Your task to perform on an android device: check the backup settings in the google photos Image 0: 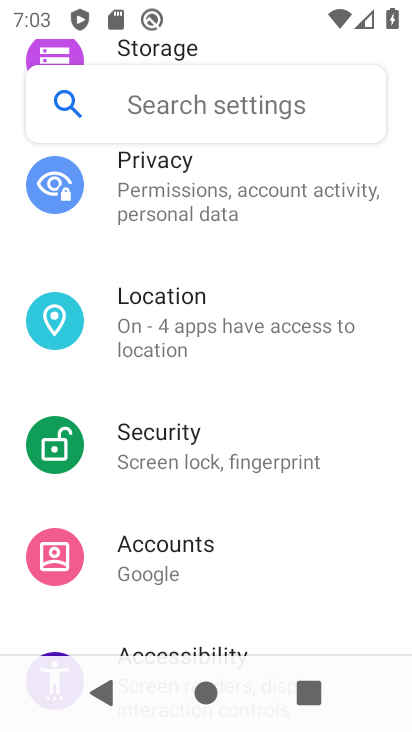
Step 0: press home button
Your task to perform on an android device: check the backup settings in the google photos Image 1: 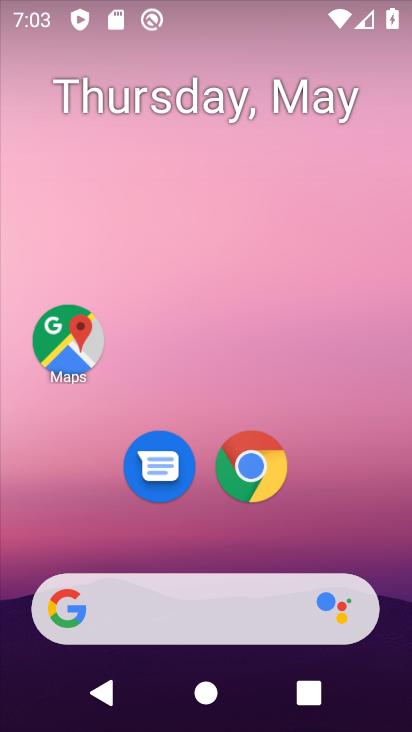
Step 1: drag from (325, 525) to (256, 28)
Your task to perform on an android device: check the backup settings in the google photos Image 2: 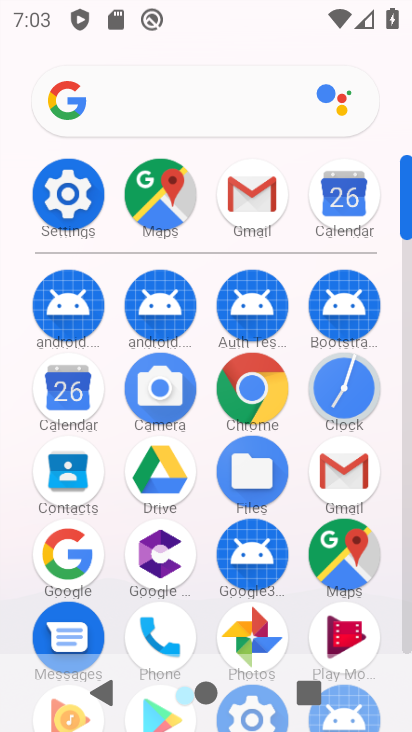
Step 2: click (242, 628)
Your task to perform on an android device: check the backup settings in the google photos Image 3: 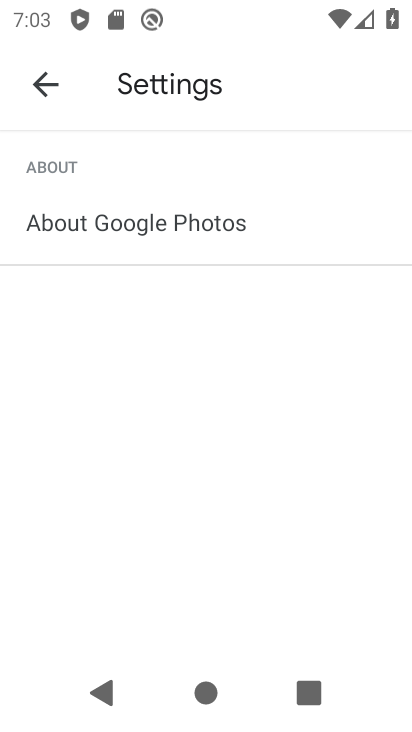
Step 3: click (42, 89)
Your task to perform on an android device: check the backup settings in the google photos Image 4: 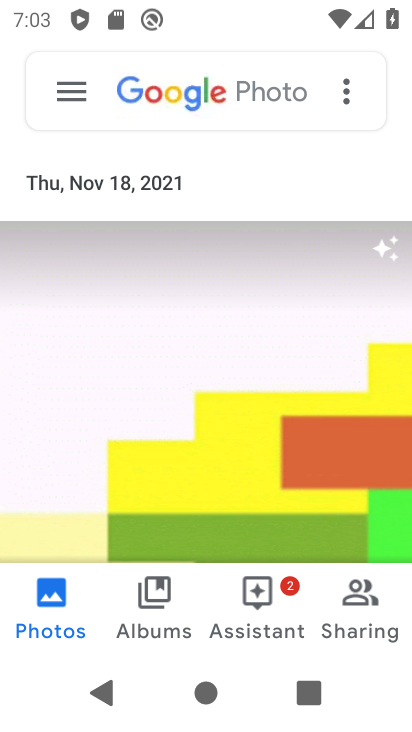
Step 4: click (63, 83)
Your task to perform on an android device: check the backup settings in the google photos Image 5: 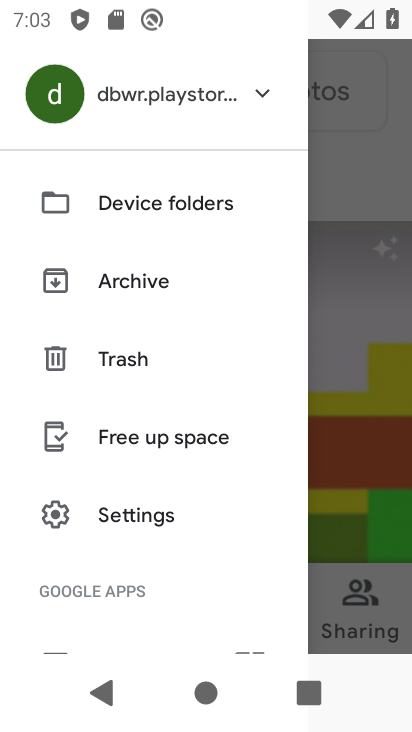
Step 5: click (151, 513)
Your task to perform on an android device: check the backup settings in the google photos Image 6: 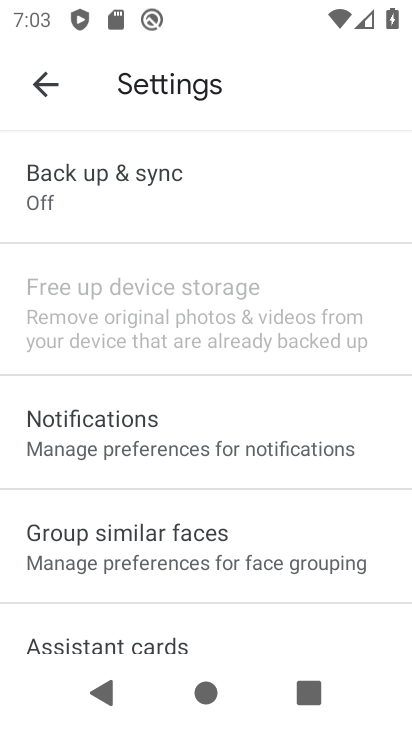
Step 6: click (88, 183)
Your task to perform on an android device: check the backup settings in the google photos Image 7: 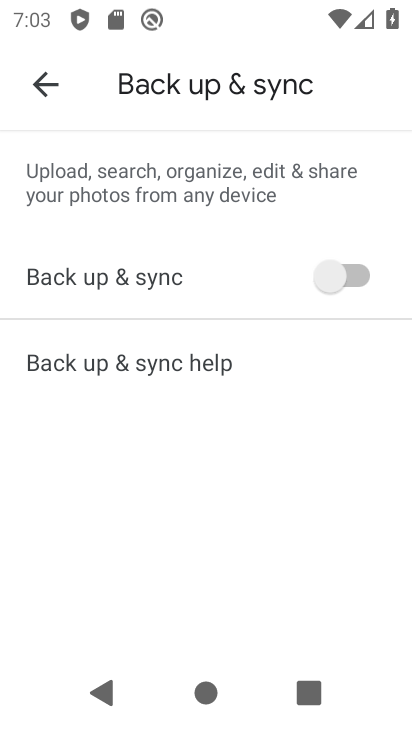
Step 7: click (158, 364)
Your task to perform on an android device: check the backup settings in the google photos Image 8: 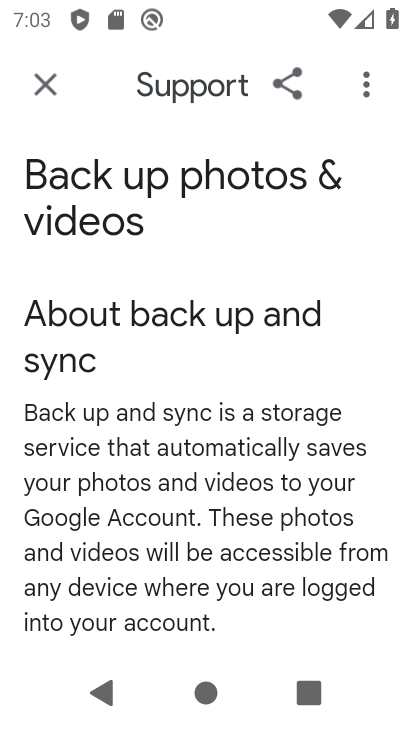
Step 8: task complete